Your task to perform on an android device: open a new tab in the chrome app Image 0: 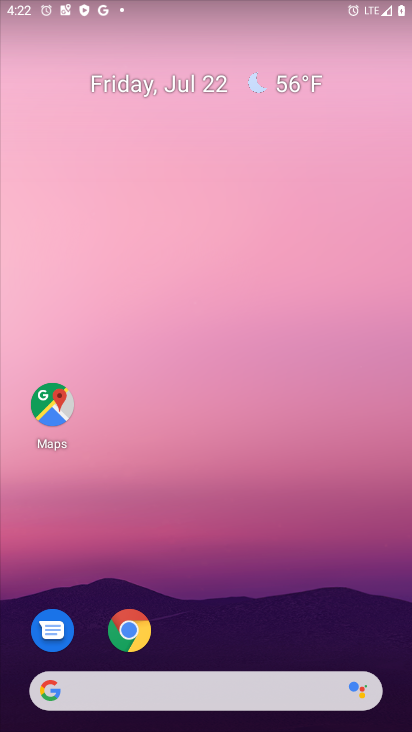
Step 0: click (142, 635)
Your task to perform on an android device: open a new tab in the chrome app Image 1: 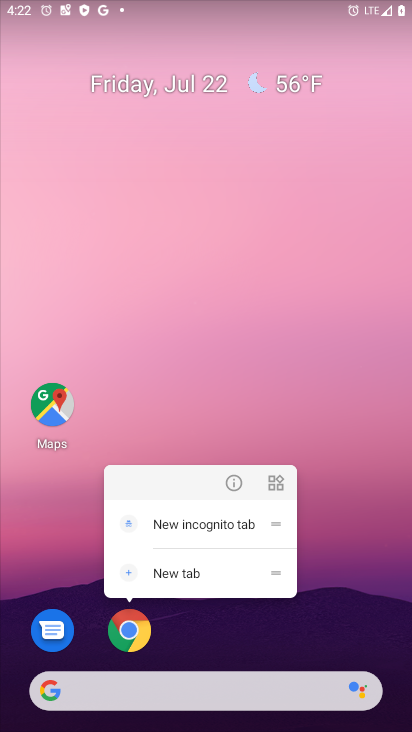
Step 1: click (144, 629)
Your task to perform on an android device: open a new tab in the chrome app Image 2: 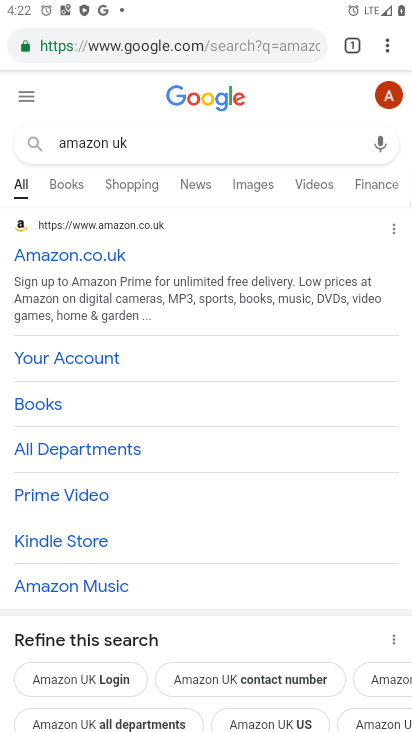
Step 2: task complete